Your task to perform on an android device: open chrome privacy settings Image 0: 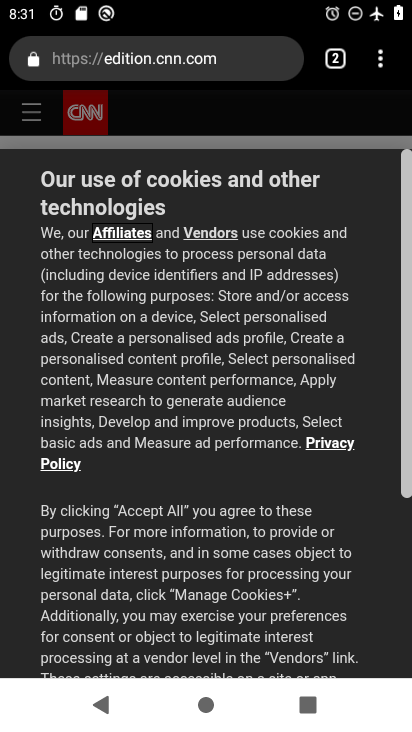
Step 0: press home button
Your task to perform on an android device: open chrome privacy settings Image 1: 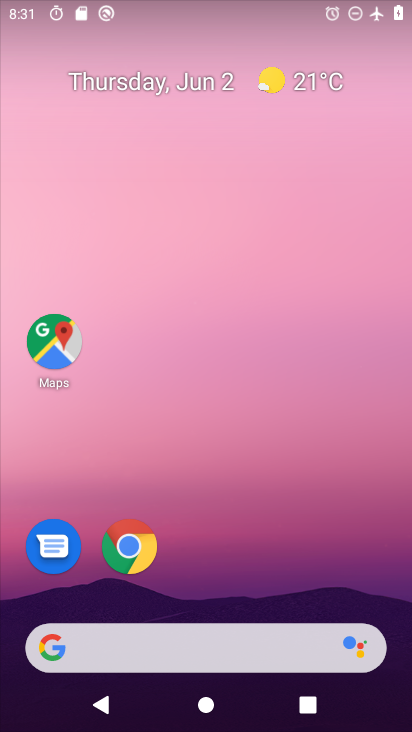
Step 1: drag from (282, 522) to (292, 117)
Your task to perform on an android device: open chrome privacy settings Image 2: 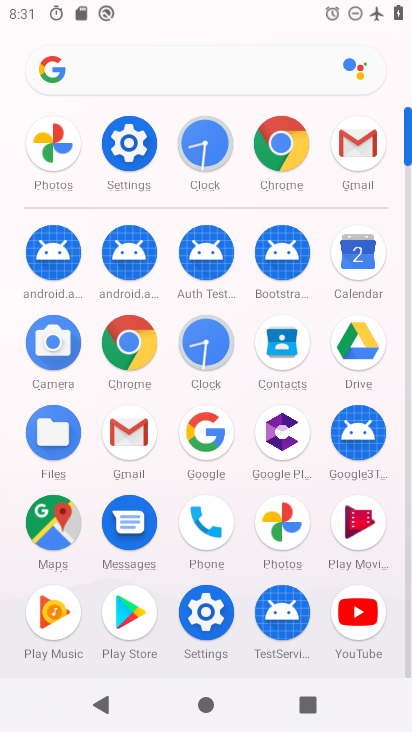
Step 2: click (125, 346)
Your task to perform on an android device: open chrome privacy settings Image 3: 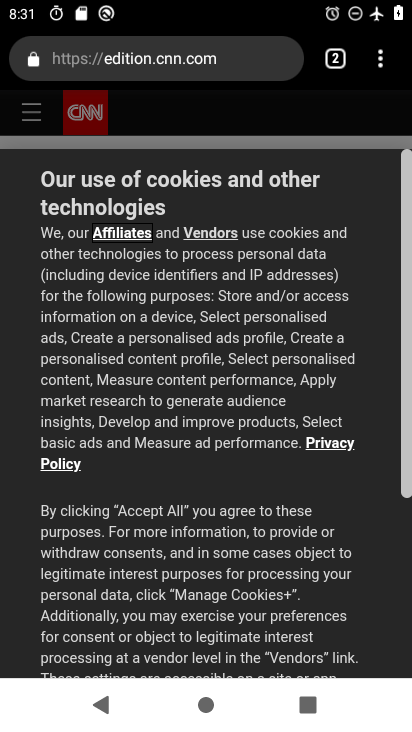
Step 3: drag from (388, 70) to (220, 581)
Your task to perform on an android device: open chrome privacy settings Image 4: 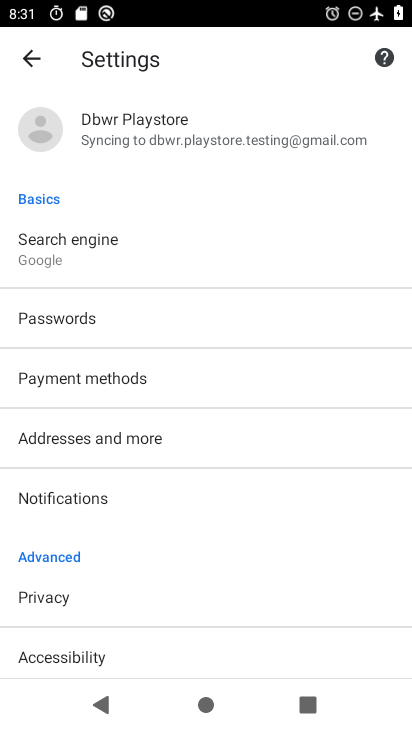
Step 4: click (185, 604)
Your task to perform on an android device: open chrome privacy settings Image 5: 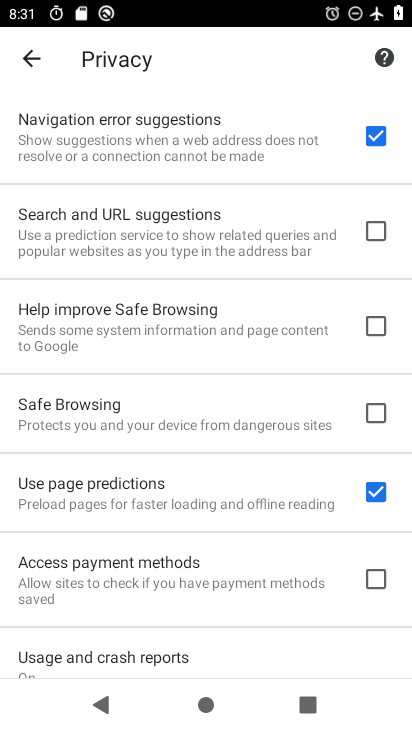
Step 5: task complete